Your task to perform on an android device: open chrome and create a bookmark for the current page Image 0: 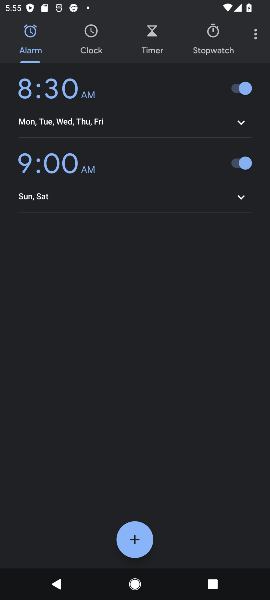
Step 0: press home button
Your task to perform on an android device: open chrome and create a bookmark for the current page Image 1: 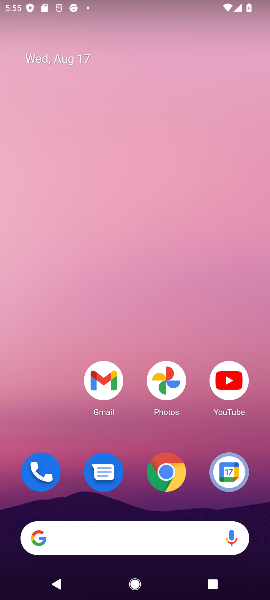
Step 1: click (168, 493)
Your task to perform on an android device: open chrome and create a bookmark for the current page Image 2: 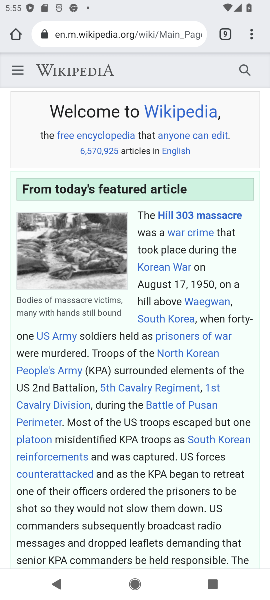
Step 2: click (250, 27)
Your task to perform on an android device: open chrome and create a bookmark for the current page Image 3: 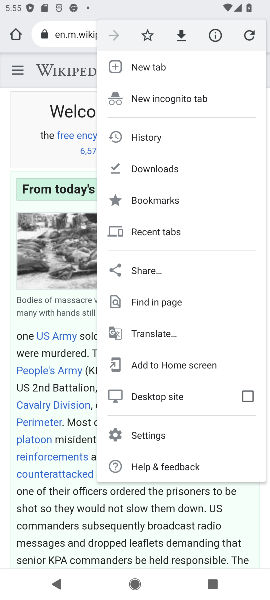
Step 3: click (151, 32)
Your task to perform on an android device: open chrome and create a bookmark for the current page Image 4: 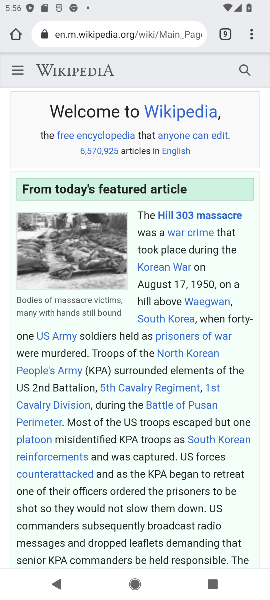
Step 4: task complete